Your task to perform on an android device: Open CNN.com Image 0: 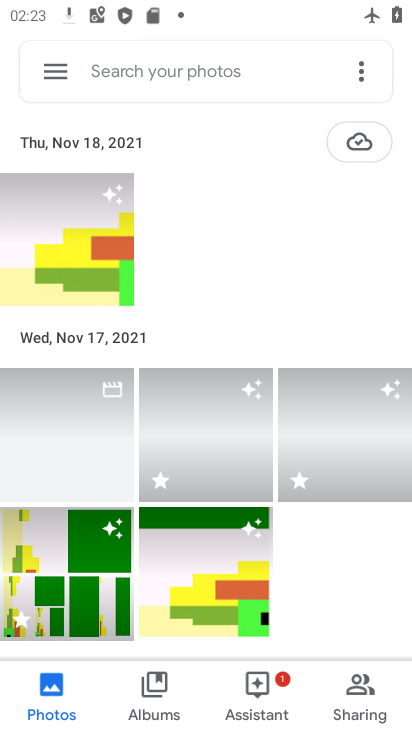
Step 0: press home button
Your task to perform on an android device: Open CNN.com Image 1: 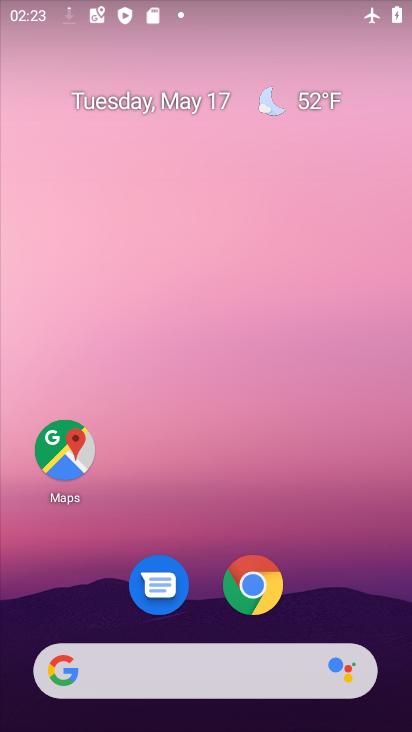
Step 1: click (246, 679)
Your task to perform on an android device: Open CNN.com Image 2: 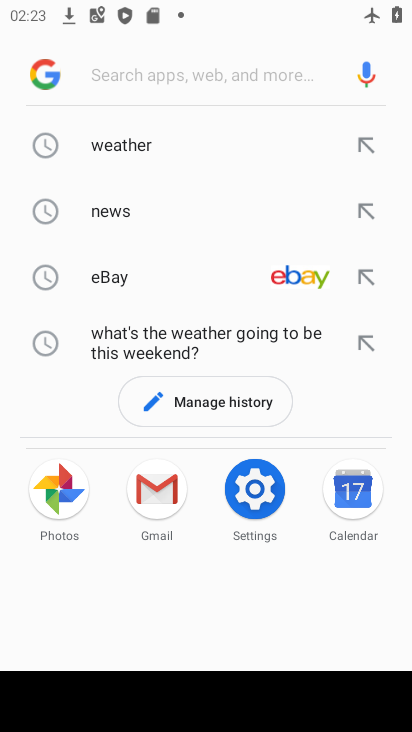
Step 2: type "cnn.com"
Your task to perform on an android device: Open CNN.com Image 3: 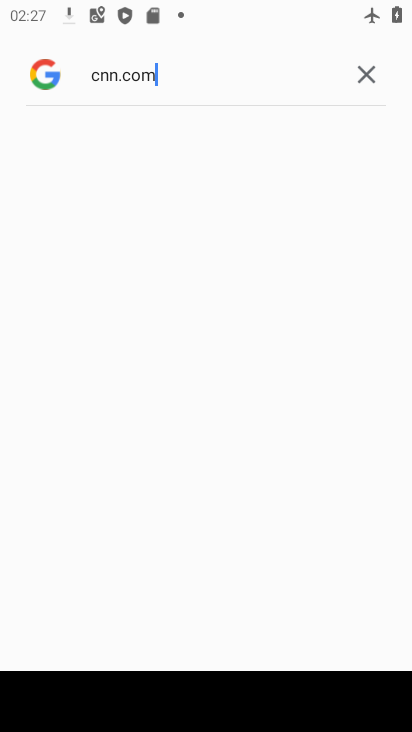
Step 3: task complete